Your task to perform on an android device: Is it going to rain this weekend? Image 0: 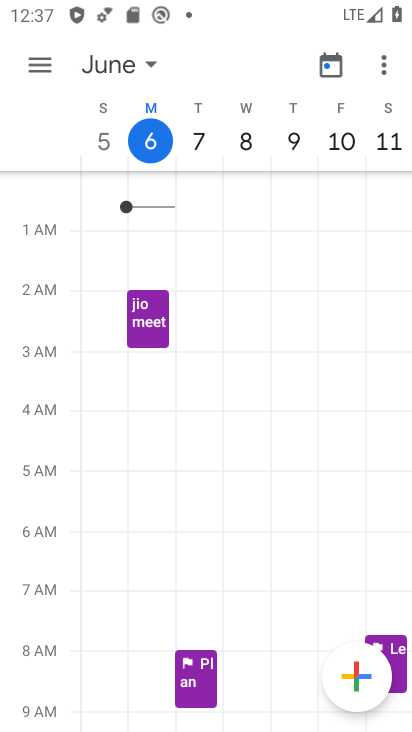
Step 0: press home button
Your task to perform on an android device: Is it going to rain this weekend? Image 1: 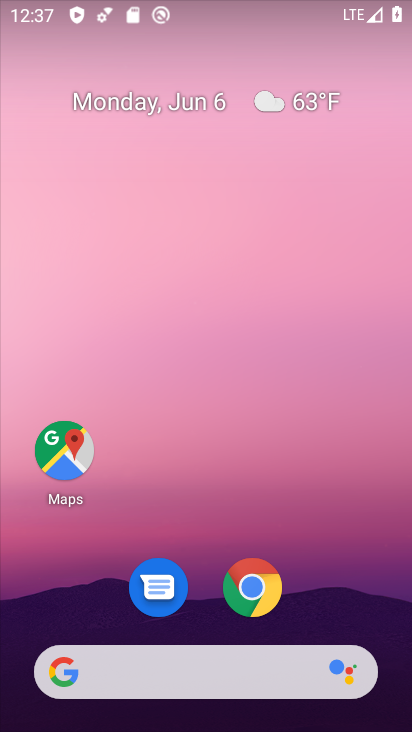
Step 1: click (244, 689)
Your task to perform on an android device: Is it going to rain this weekend? Image 2: 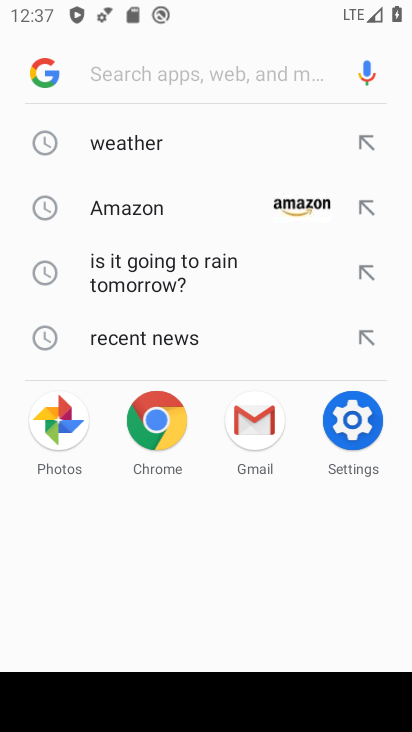
Step 2: type "Is it going to rain this weekend?"
Your task to perform on an android device: Is it going to rain this weekend? Image 3: 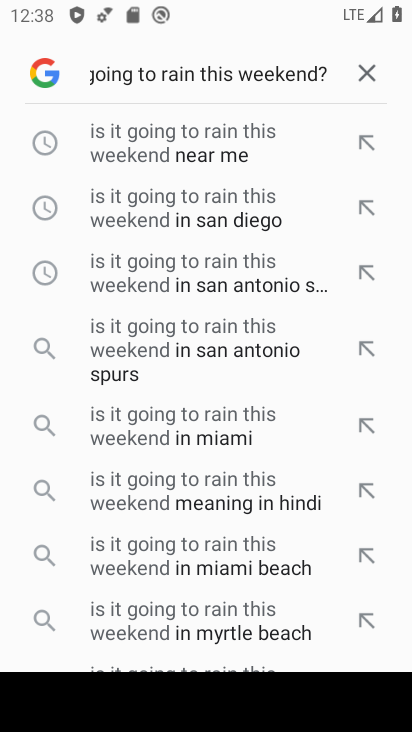
Step 3: press enter
Your task to perform on an android device: Is it going to rain this weekend? Image 4: 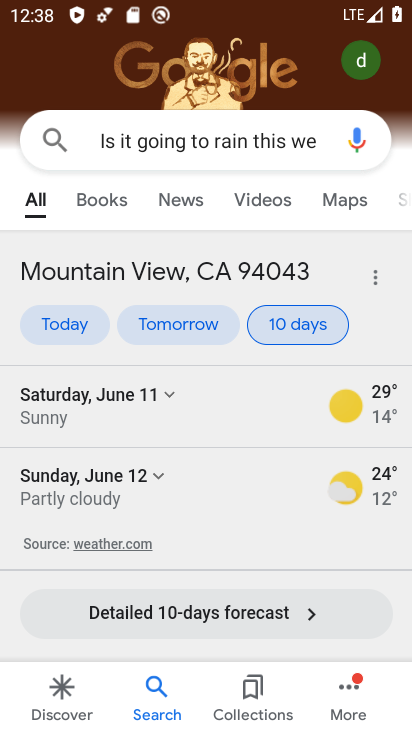
Step 4: task complete